Your task to perform on an android device: See recent photos Image 0: 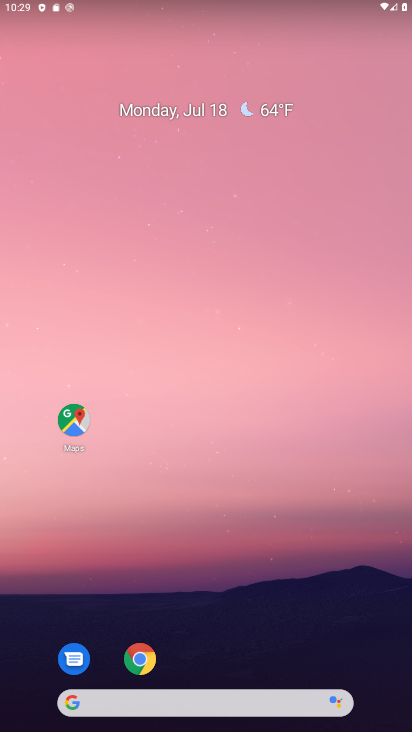
Step 0: drag from (227, 679) to (227, 62)
Your task to perform on an android device: See recent photos Image 1: 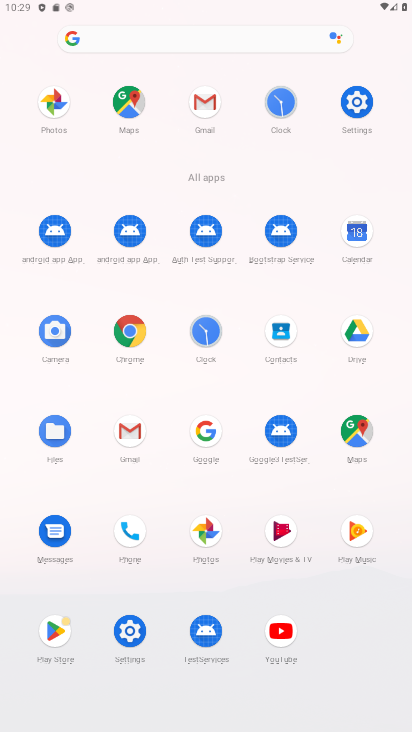
Step 1: click (213, 535)
Your task to perform on an android device: See recent photos Image 2: 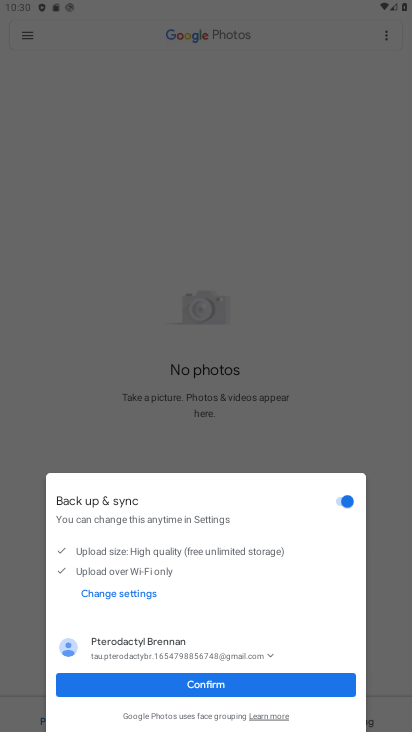
Step 2: click (173, 690)
Your task to perform on an android device: See recent photos Image 3: 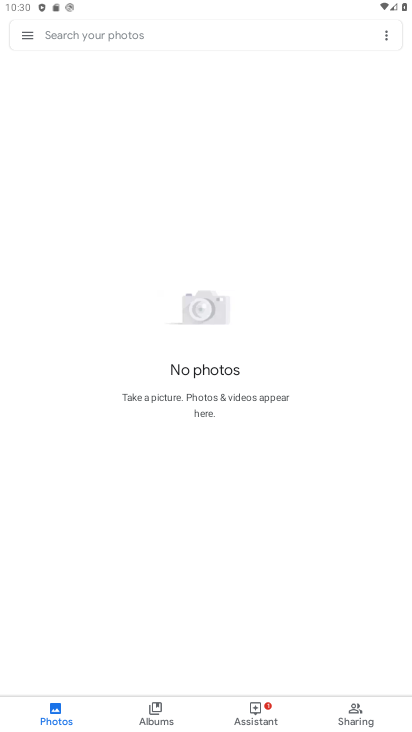
Step 3: task complete